Your task to perform on an android device: check android version Image 0: 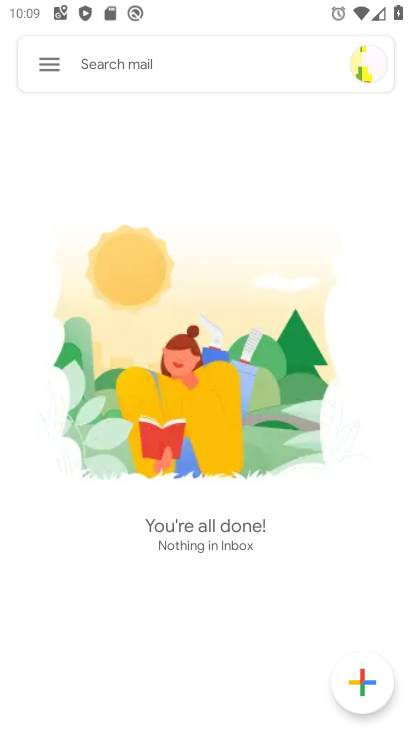
Step 0: press home button
Your task to perform on an android device: check android version Image 1: 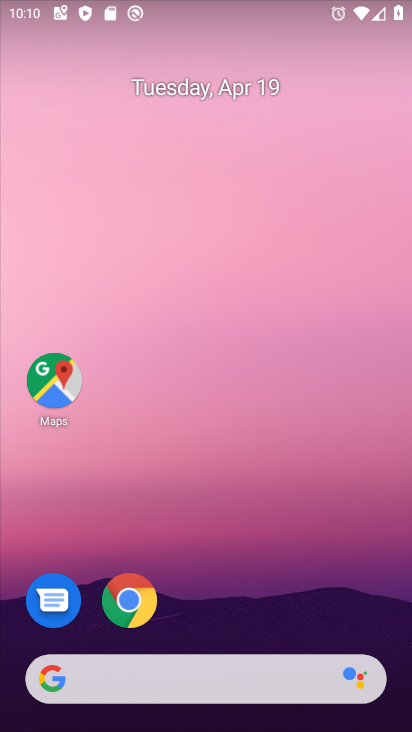
Step 1: drag from (252, 575) to (188, 189)
Your task to perform on an android device: check android version Image 2: 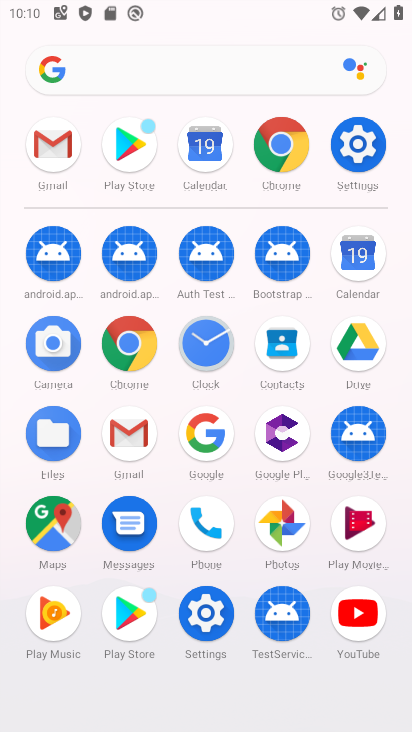
Step 2: click (348, 141)
Your task to perform on an android device: check android version Image 3: 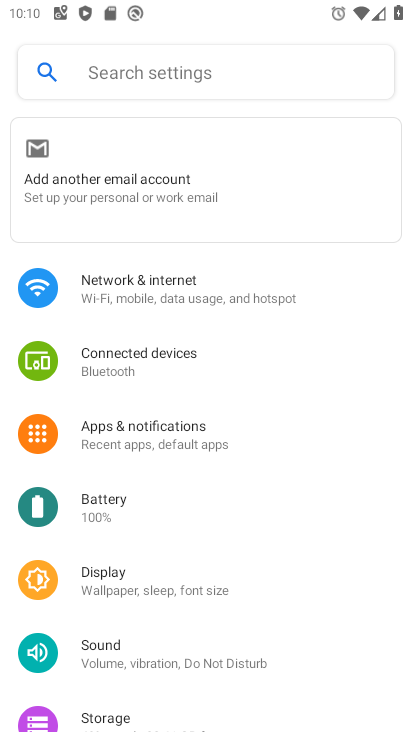
Step 3: drag from (164, 607) to (177, 223)
Your task to perform on an android device: check android version Image 4: 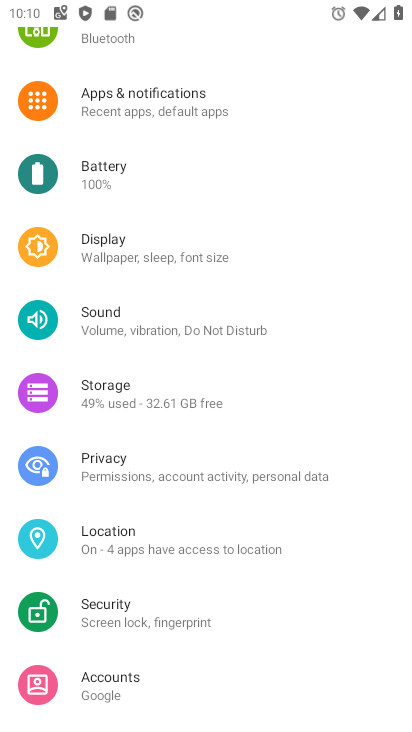
Step 4: drag from (147, 526) to (171, 165)
Your task to perform on an android device: check android version Image 5: 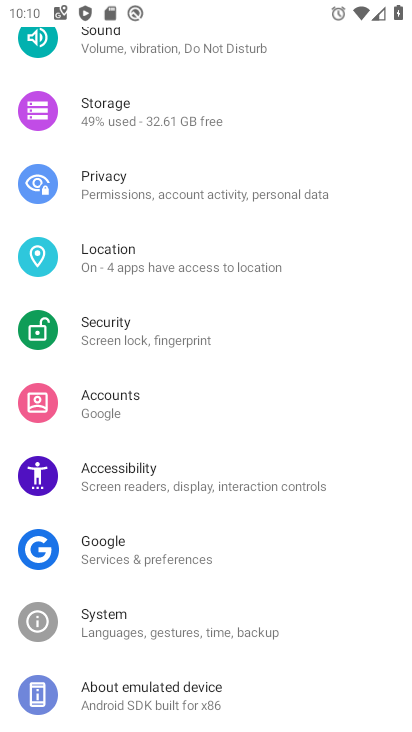
Step 5: drag from (189, 656) to (226, 290)
Your task to perform on an android device: check android version Image 6: 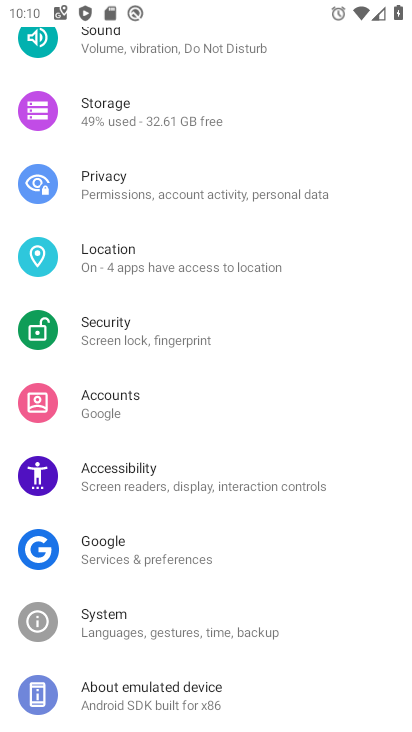
Step 6: click (172, 701)
Your task to perform on an android device: check android version Image 7: 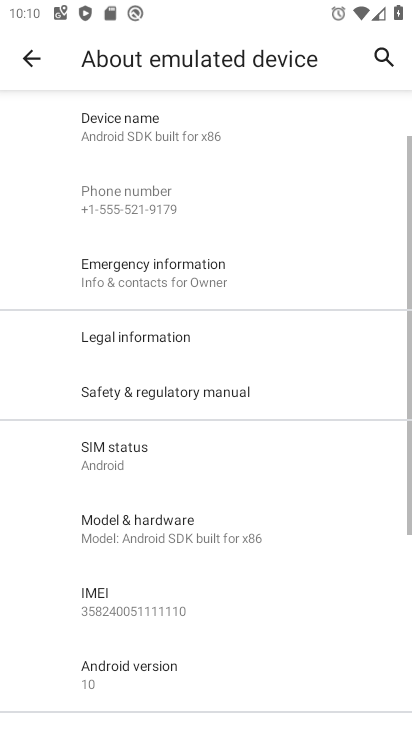
Step 7: click (177, 677)
Your task to perform on an android device: check android version Image 8: 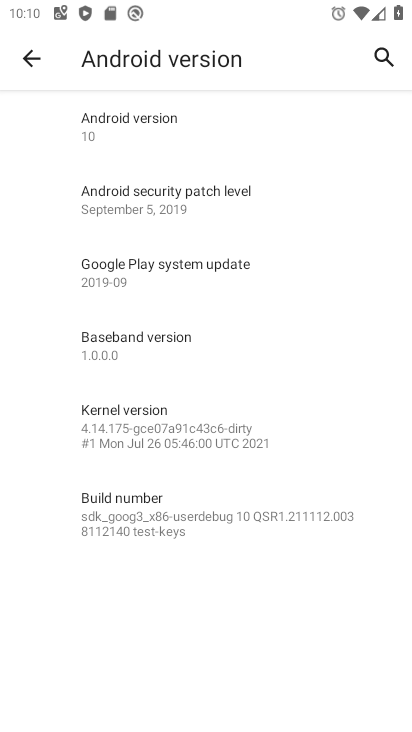
Step 8: click (222, 141)
Your task to perform on an android device: check android version Image 9: 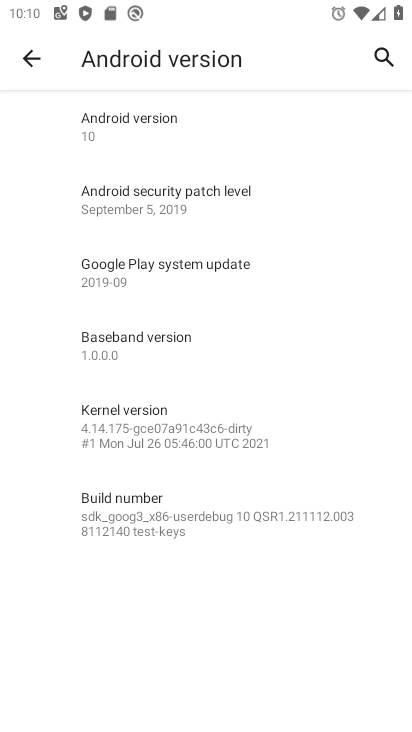
Step 9: task complete